Your task to perform on an android device: turn off smart reply in the gmail app Image 0: 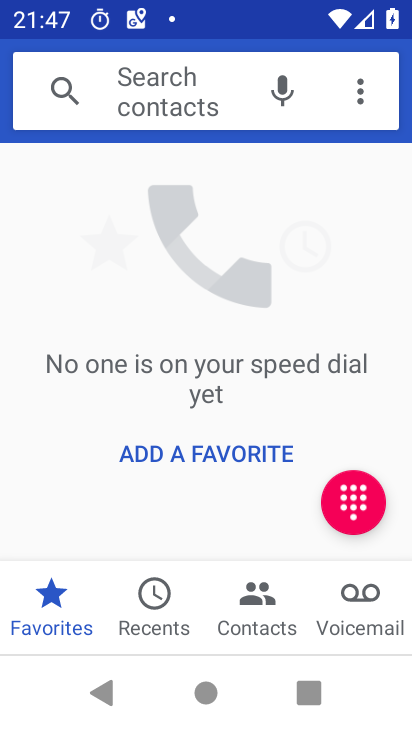
Step 0: press home button
Your task to perform on an android device: turn off smart reply in the gmail app Image 1: 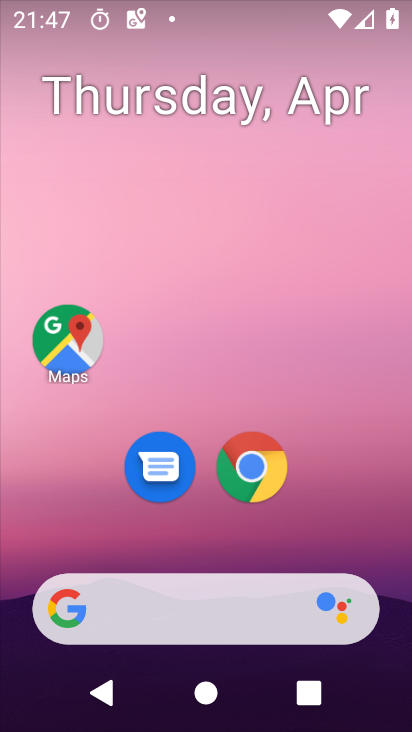
Step 1: drag from (191, 544) to (382, 462)
Your task to perform on an android device: turn off smart reply in the gmail app Image 2: 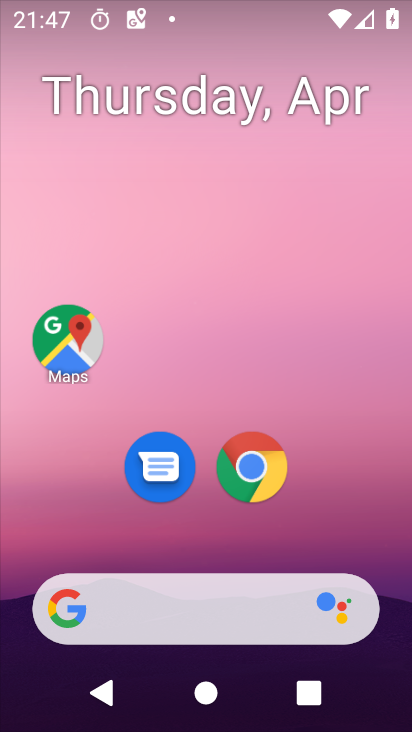
Step 2: drag from (212, 565) to (236, 3)
Your task to perform on an android device: turn off smart reply in the gmail app Image 3: 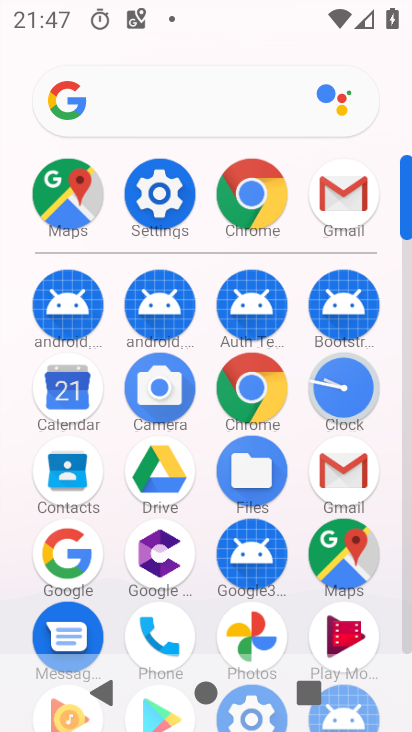
Step 3: click (333, 483)
Your task to perform on an android device: turn off smart reply in the gmail app Image 4: 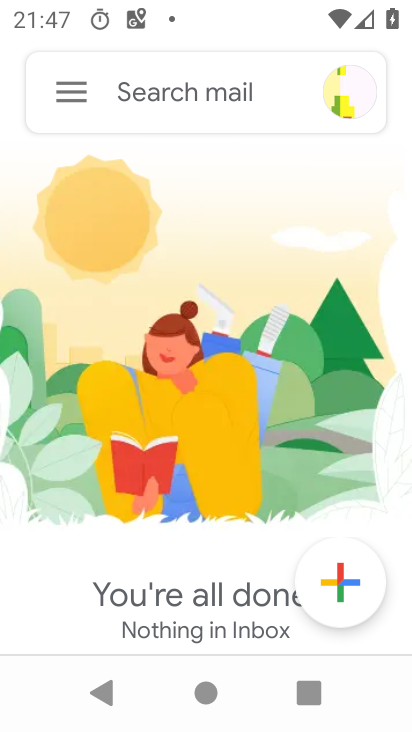
Step 4: click (59, 99)
Your task to perform on an android device: turn off smart reply in the gmail app Image 5: 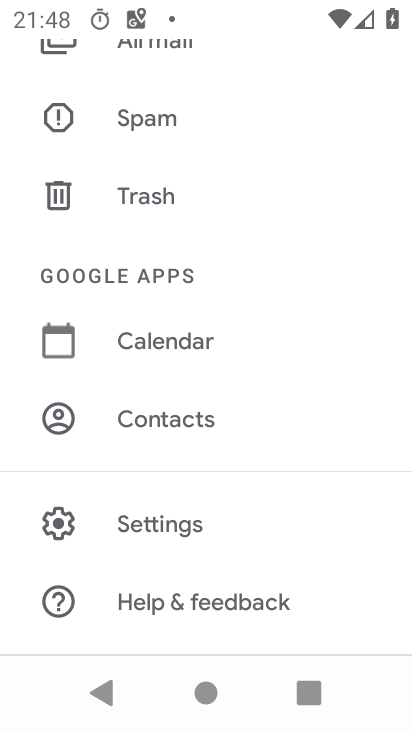
Step 5: click (158, 518)
Your task to perform on an android device: turn off smart reply in the gmail app Image 6: 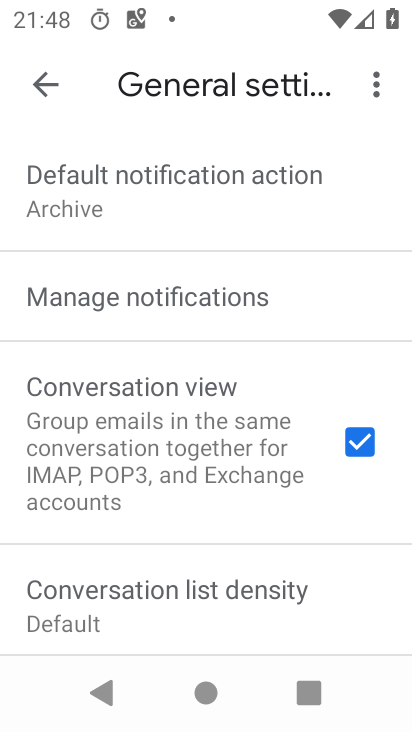
Step 6: click (22, 57)
Your task to perform on an android device: turn off smart reply in the gmail app Image 7: 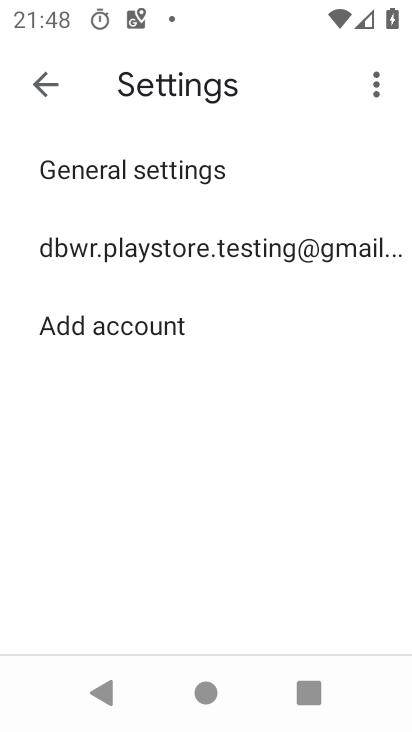
Step 7: click (55, 241)
Your task to perform on an android device: turn off smart reply in the gmail app Image 8: 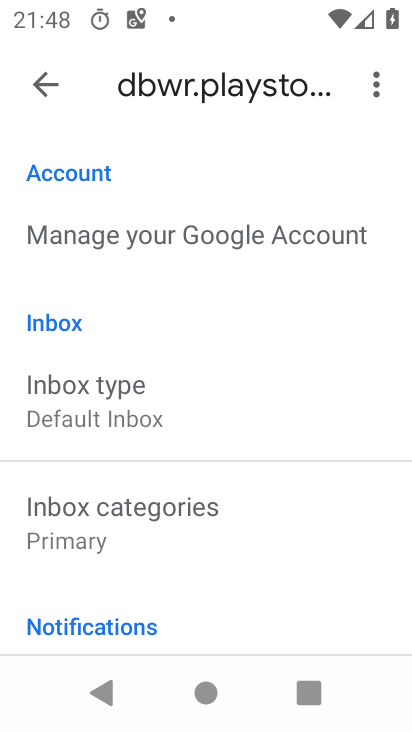
Step 8: drag from (126, 519) to (110, 16)
Your task to perform on an android device: turn off smart reply in the gmail app Image 9: 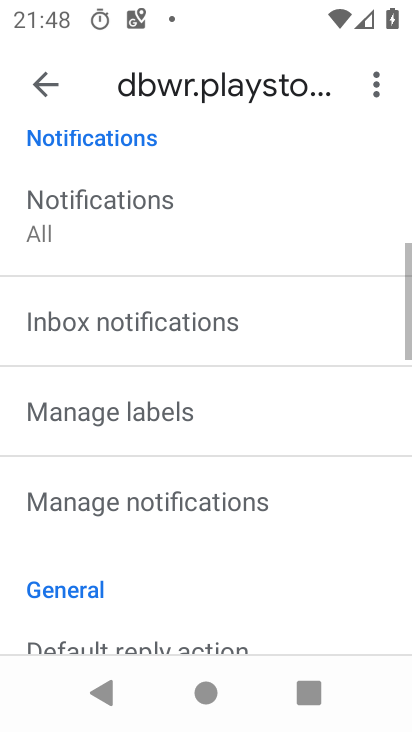
Step 9: drag from (103, 525) to (93, 1)
Your task to perform on an android device: turn off smart reply in the gmail app Image 10: 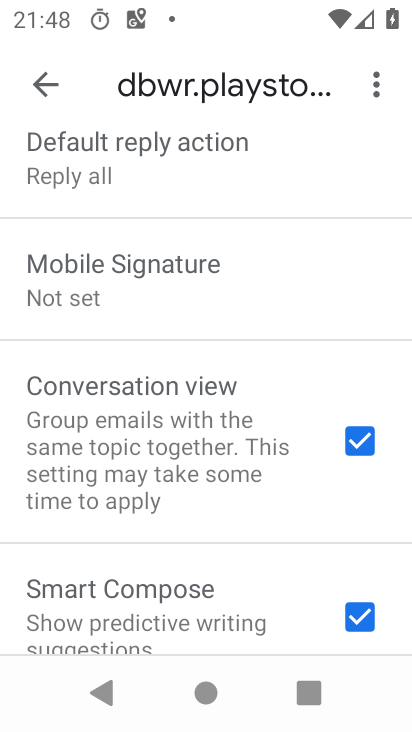
Step 10: click (352, 596)
Your task to perform on an android device: turn off smart reply in the gmail app Image 11: 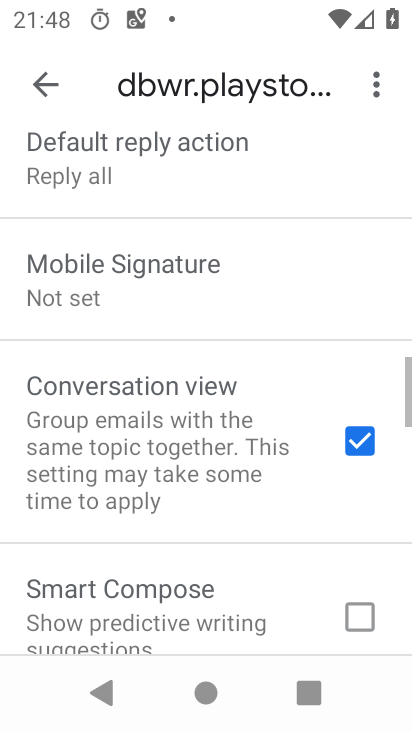
Step 11: task complete